Your task to perform on an android device: Go to Yahoo.com Image 0: 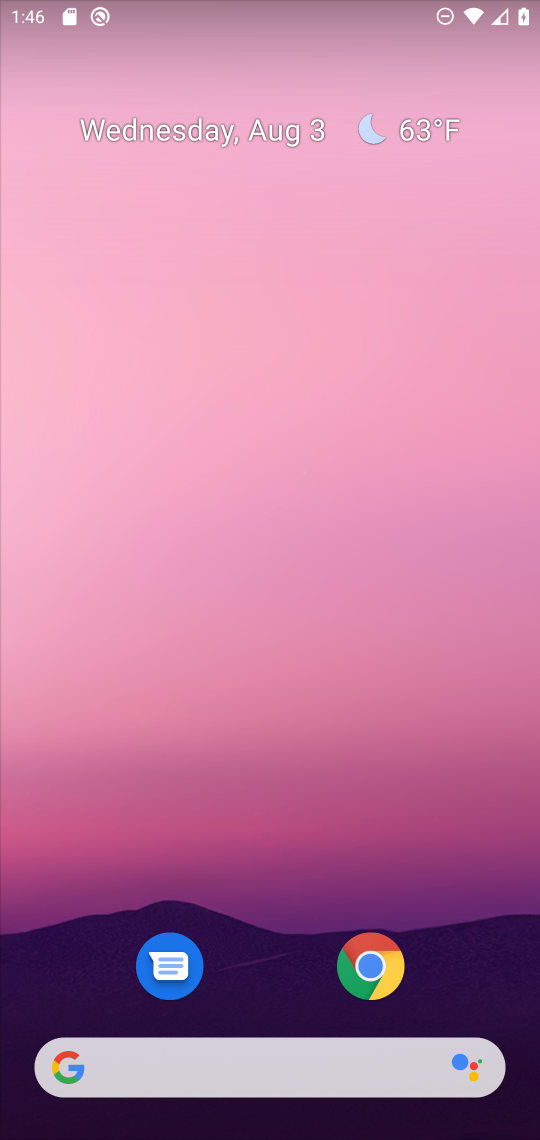
Step 0: click (369, 992)
Your task to perform on an android device: Go to Yahoo.com Image 1: 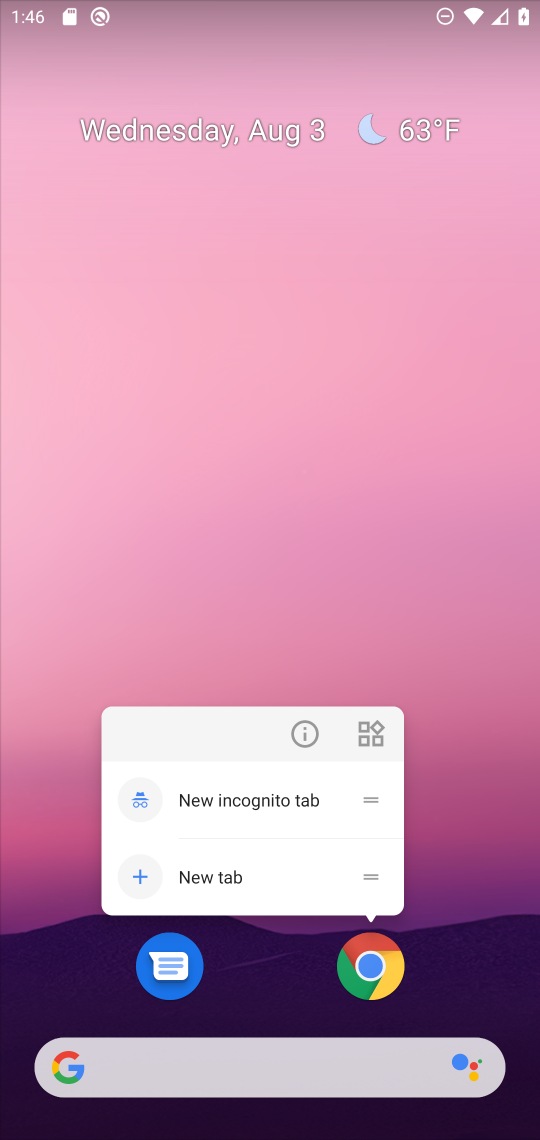
Step 1: click (358, 990)
Your task to perform on an android device: Go to Yahoo.com Image 2: 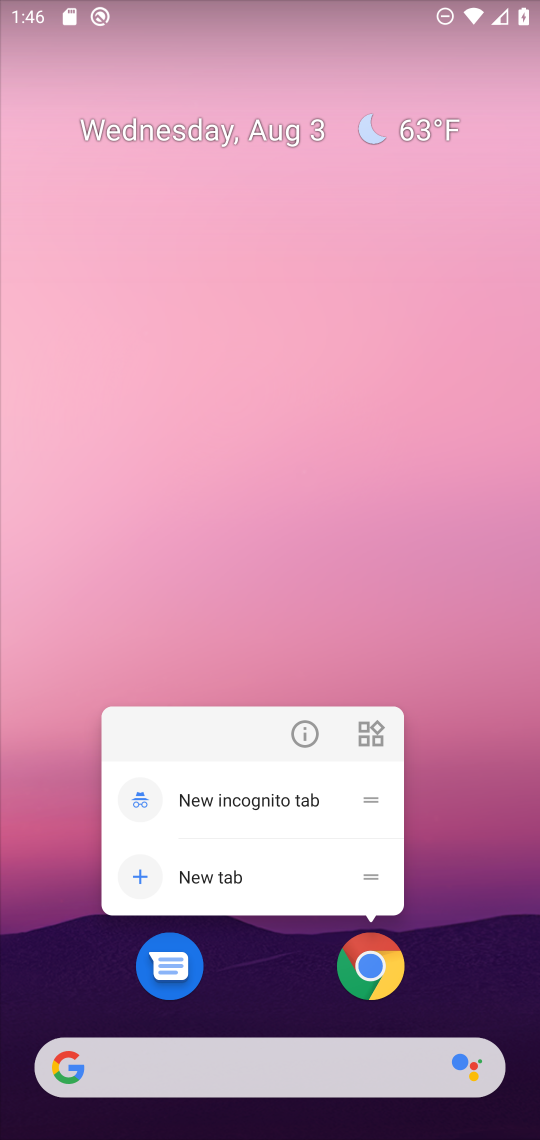
Step 2: click (358, 990)
Your task to perform on an android device: Go to Yahoo.com Image 3: 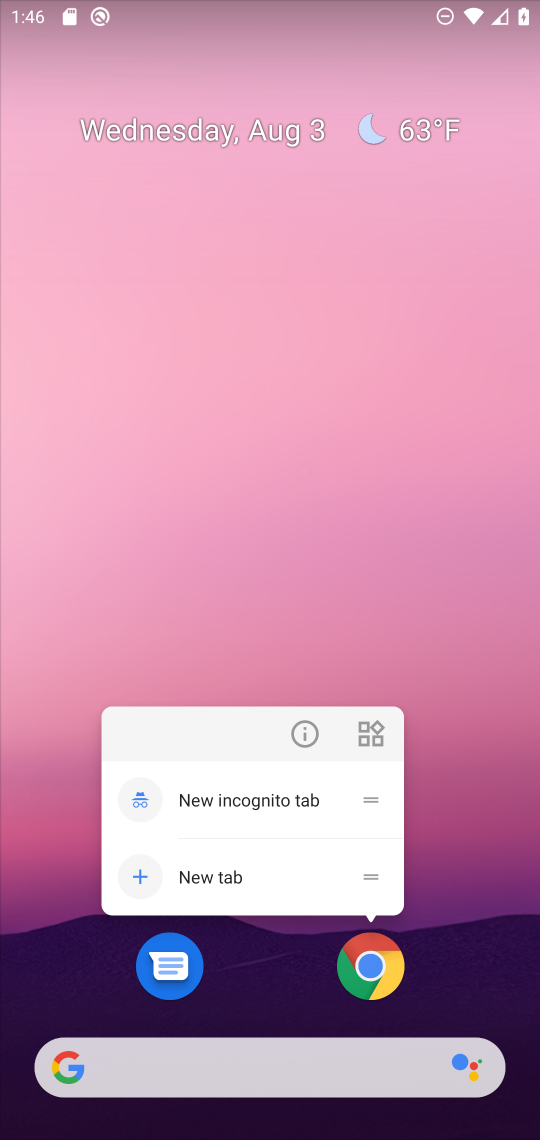
Step 3: click (347, 954)
Your task to perform on an android device: Go to Yahoo.com Image 4: 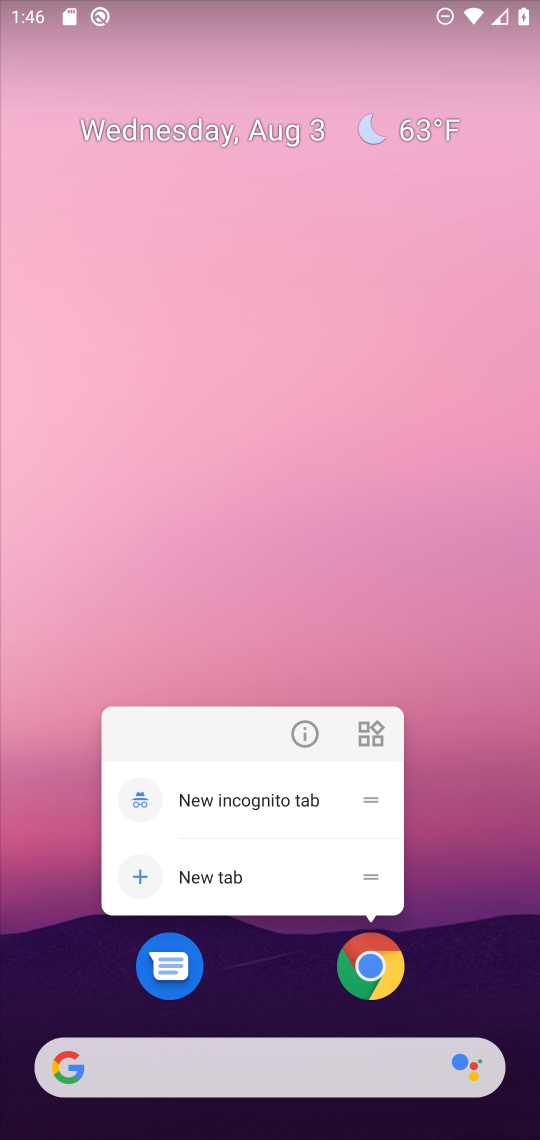
Step 4: click (399, 966)
Your task to perform on an android device: Go to Yahoo.com Image 5: 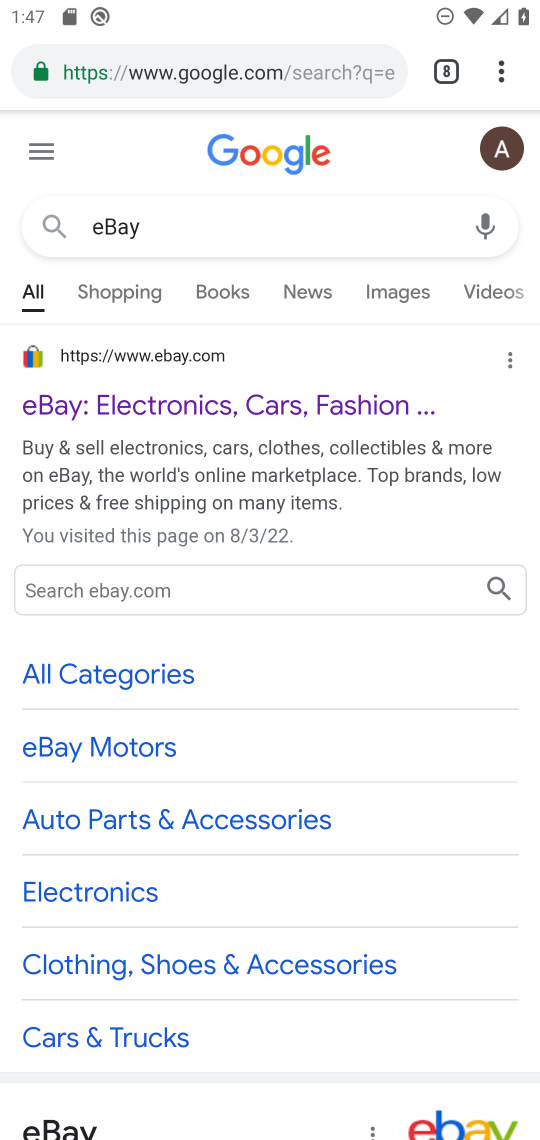
Step 5: click (448, 74)
Your task to perform on an android device: Go to Yahoo.com Image 6: 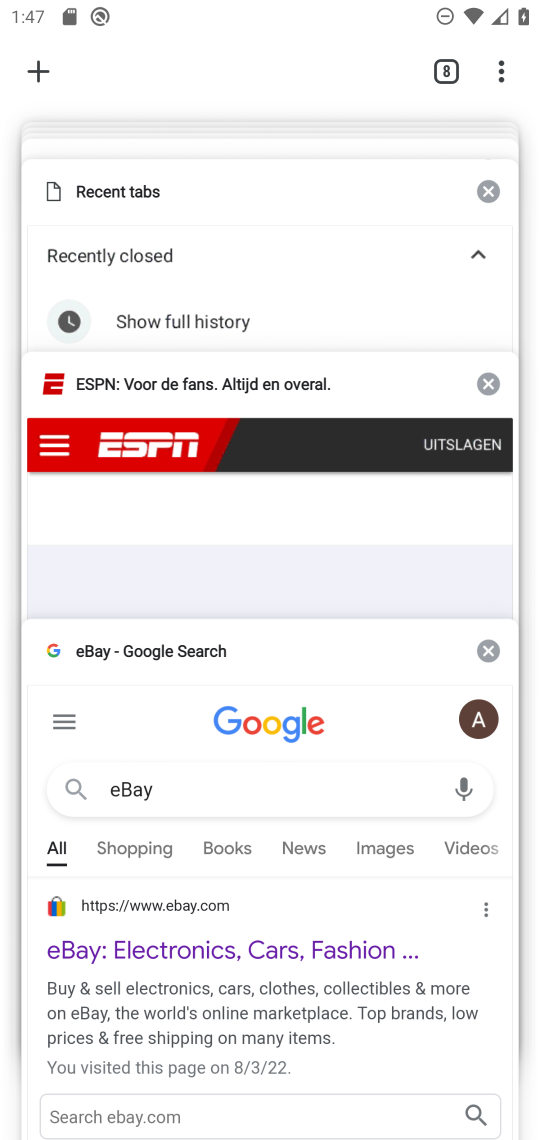
Step 6: click (24, 77)
Your task to perform on an android device: Go to Yahoo.com Image 7: 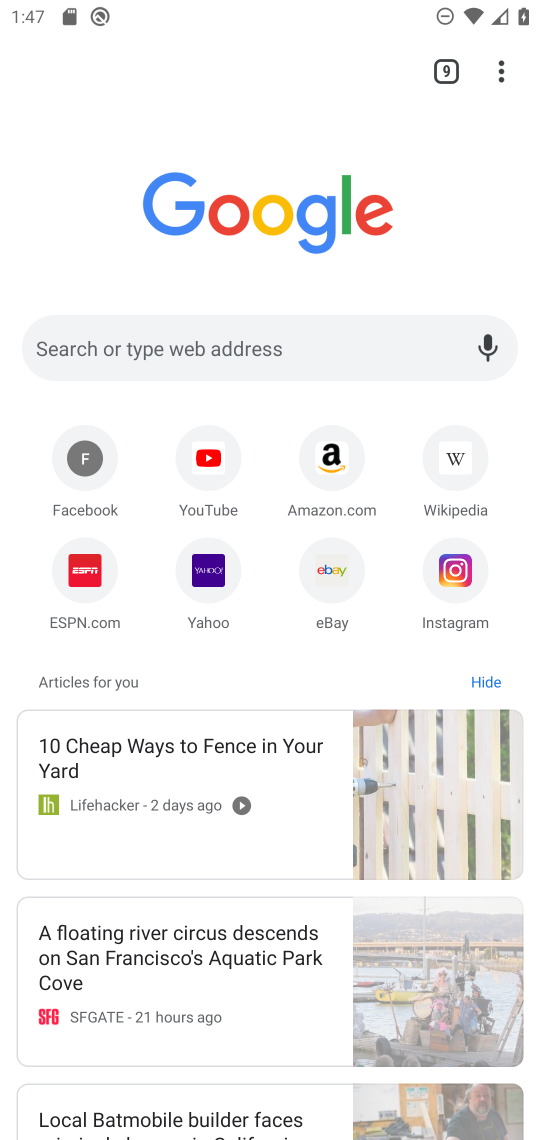
Step 7: click (199, 560)
Your task to perform on an android device: Go to Yahoo.com Image 8: 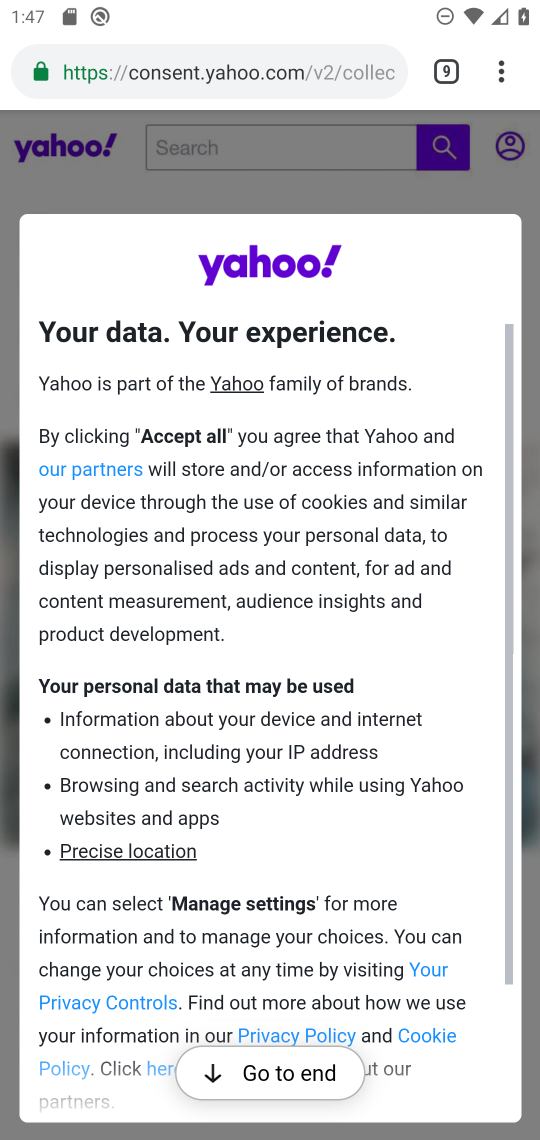
Step 8: task complete